Your task to perform on an android device: toggle data saver in the chrome app Image 0: 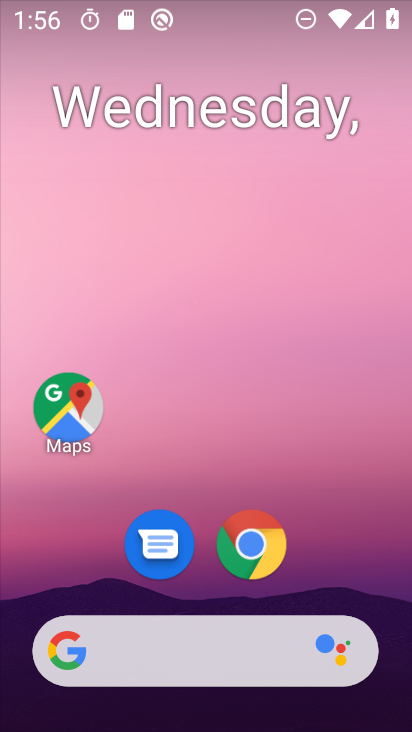
Step 0: drag from (310, 569) to (339, 211)
Your task to perform on an android device: toggle data saver in the chrome app Image 1: 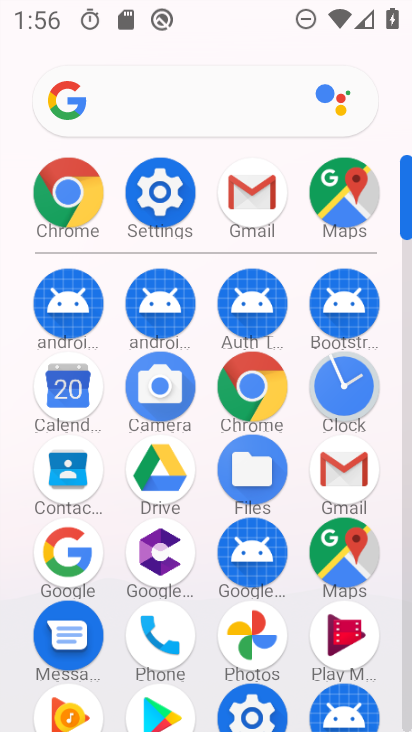
Step 1: click (261, 390)
Your task to perform on an android device: toggle data saver in the chrome app Image 2: 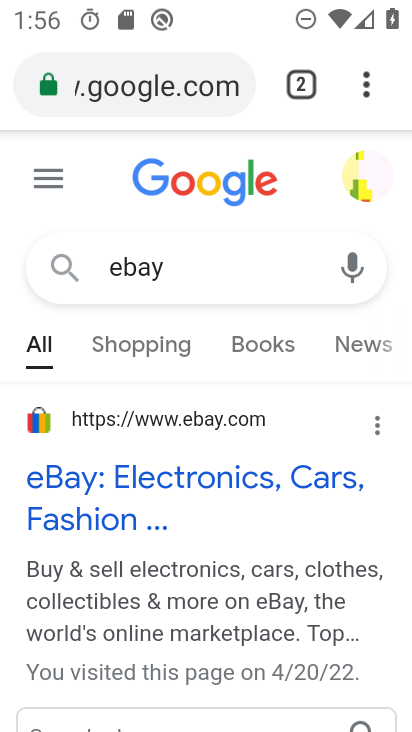
Step 2: click (367, 79)
Your task to perform on an android device: toggle data saver in the chrome app Image 3: 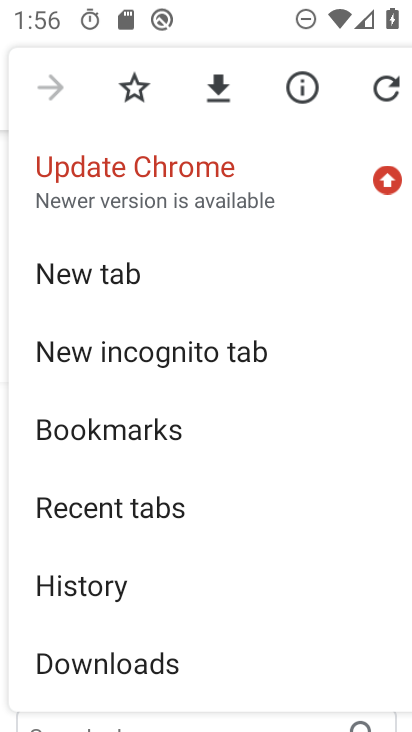
Step 3: drag from (294, 554) to (312, 375)
Your task to perform on an android device: toggle data saver in the chrome app Image 4: 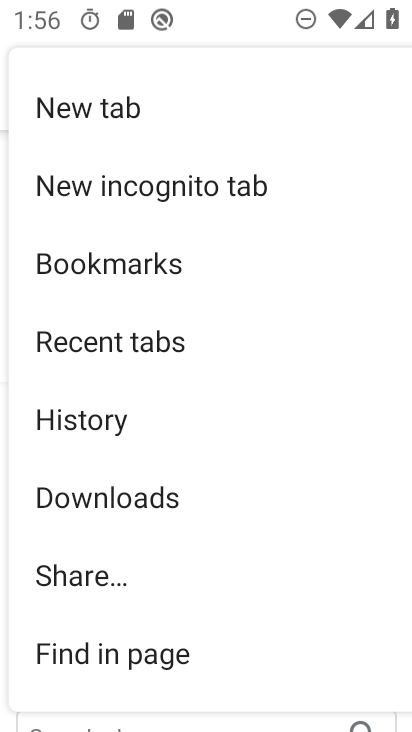
Step 4: drag from (292, 566) to (312, 392)
Your task to perform on an android device: toggle data saver in the chrome app Image 5: 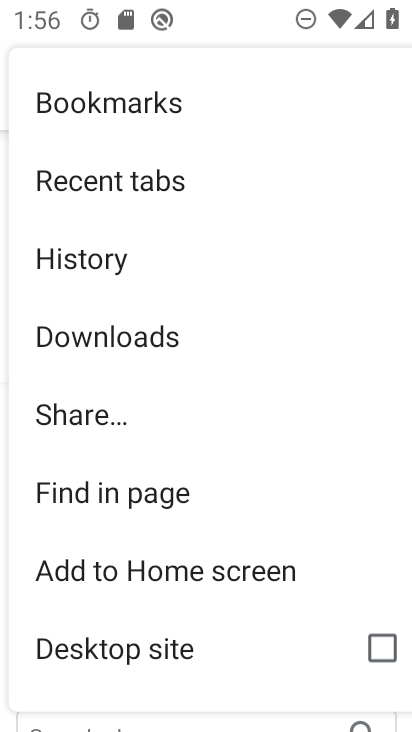
Step 5: drag from (254, 639) to (266, 396)
Your task to perform on an android device: toggle data saver in the chrome app Image 6: 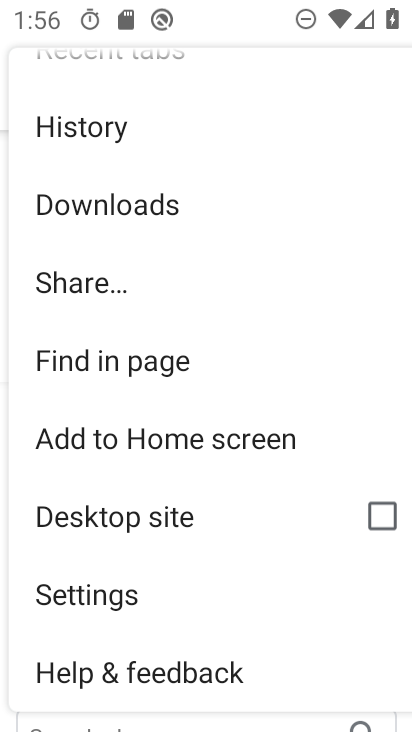
Step 6: click (103, 609)
Your task to perform on an android device: toggle data saver in the chrome app Image 7: 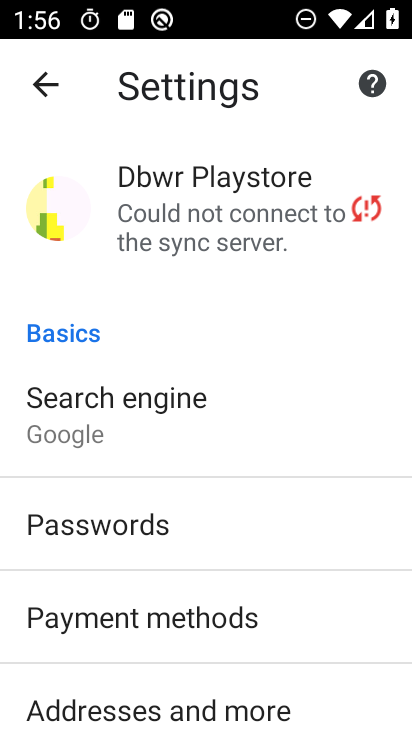
Step 7: drag from (326, 597) to (327, 422)
Your task to perform on an android device: toggle data saver in the chrome app Image 8: 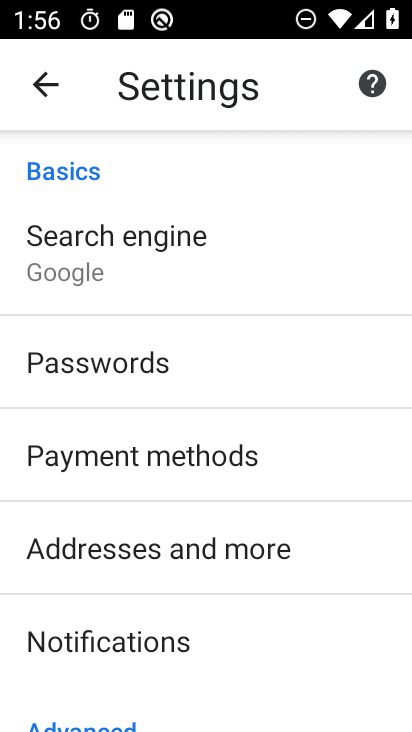
Step 8: drag from (339, 624) to (353, 453)
Your task to perform on an android device: toggle data saver in the chrome app Image 9: 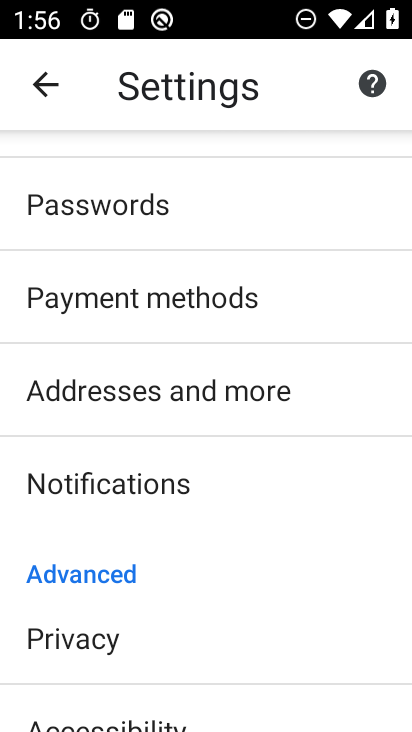
Step 9: drag from (335, 552) to (364, 379)
Your task to perform on an android device: toggle data saver in the chrome app Image 10: 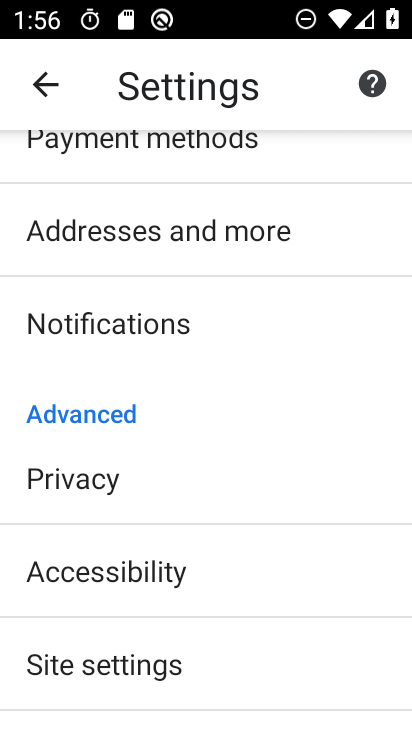
Step 10: drag from (335, 540) to (347, 386)
Your task to perform on an android device: toggle data saver in the chrome app Image 11: 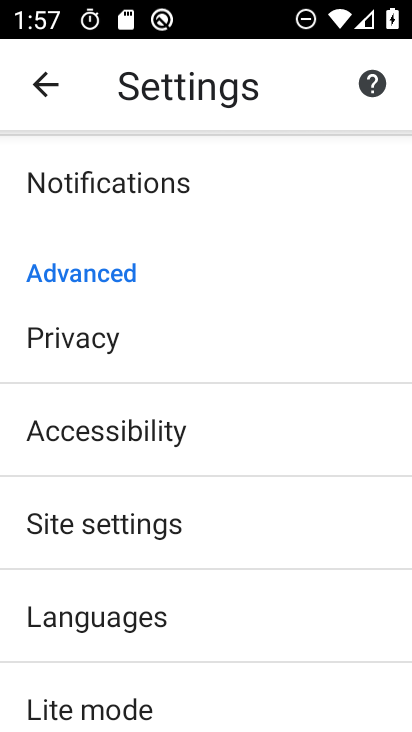
Step 11: drag from (345, 546) to (350, 389)
Your task to perform on an android device: toggle data saver in the chrome app Image 12: 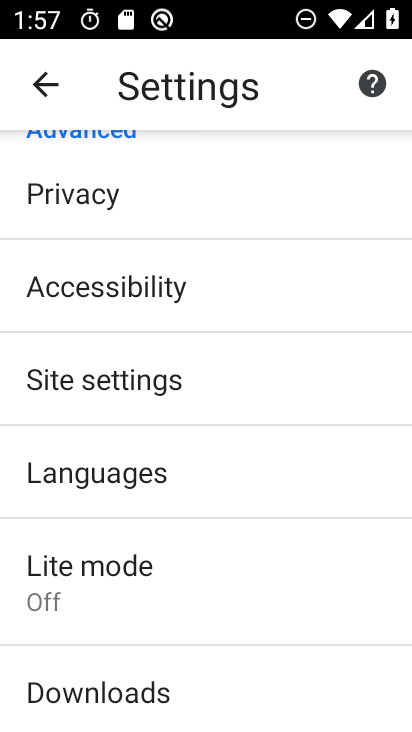
Step 12: drag from (341, 603) to (323, 422)
Your task to perform on an android device: toggle data saver in the chrome app Image 13: 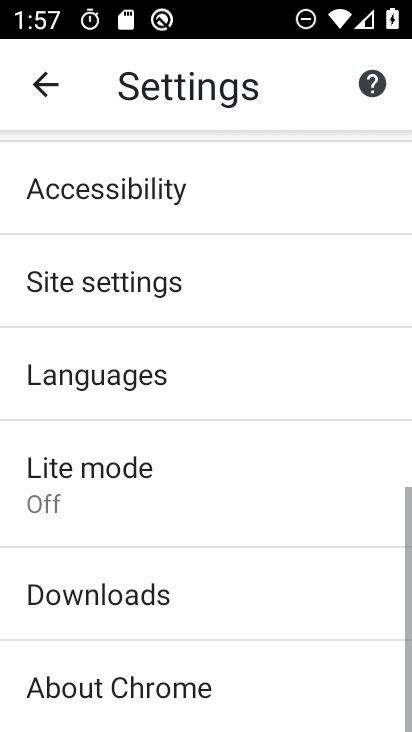
Step 13: drag from (325, 614) to (335, 452)
Your task to perform on an android device: toggle data saver in the chrome app Image 14: 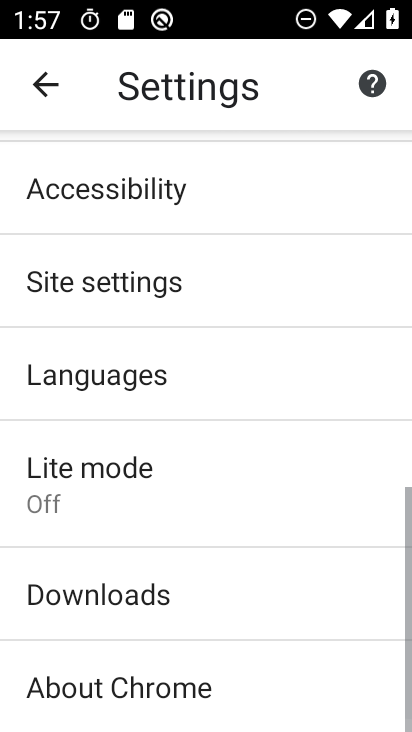
Step 14: click (221, 463)
Your task to perform on an android device: toggle data saver in the chrome app Image 15: 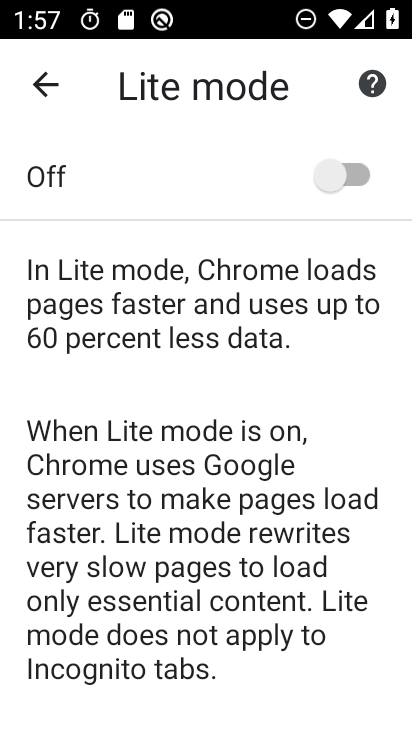
Step 15: click (343, 168)
Your task to perform on an android device: toggle data saver in the chrome app Image 16: 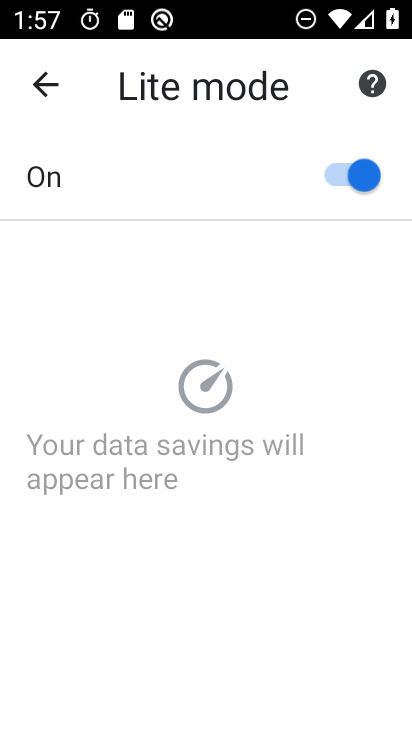
Step 16: task complete